Your task to perform on an android device: Open calendar and show me the fourth week of next month Image 0: 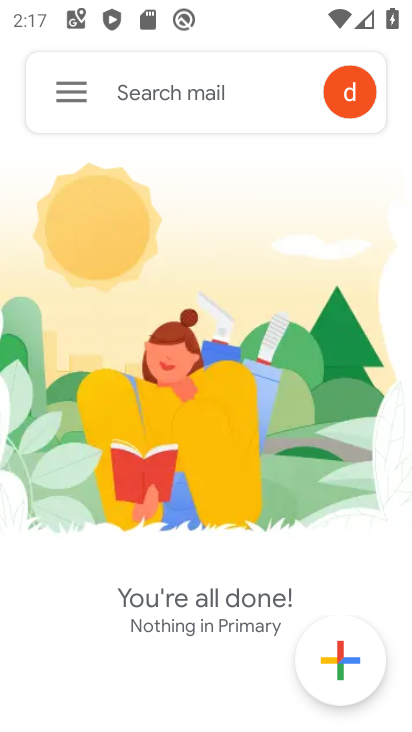
Step 0: press home button
Your task to perform on an android device: Open calendar and show me the fourth week of next month Image 1: 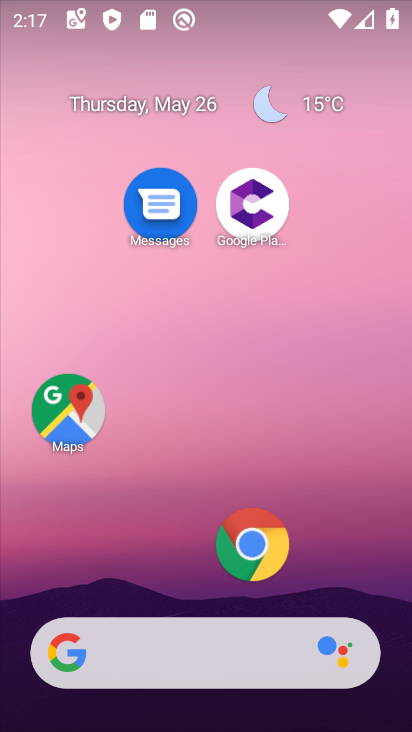
Step 1: click (143, 111)
Your task to perform on an android device: Open calendar and show me the fourth week of next month Image 2: 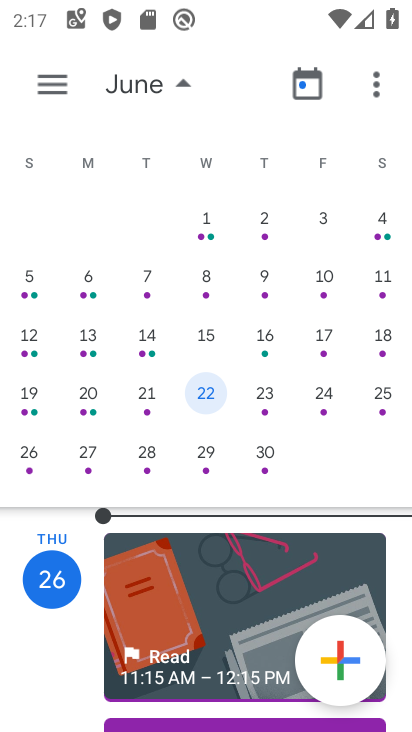
Step 2: task complete